Your task to perform on an android device: add a contact in the contacts app Image 0: 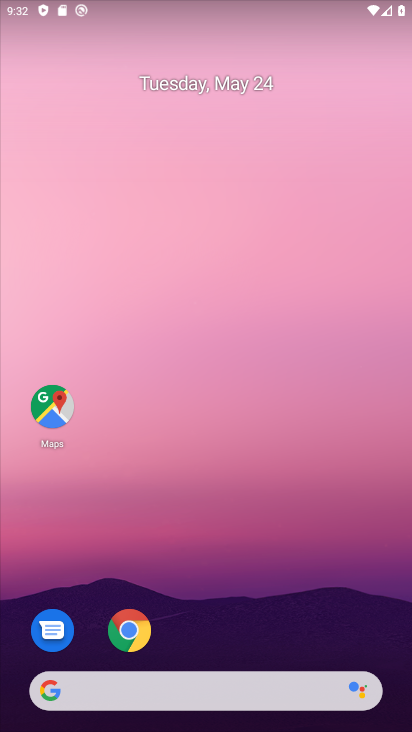
Step 0: press home button
Your task to perform on an android device: add a contact in the contacts app Image 1: 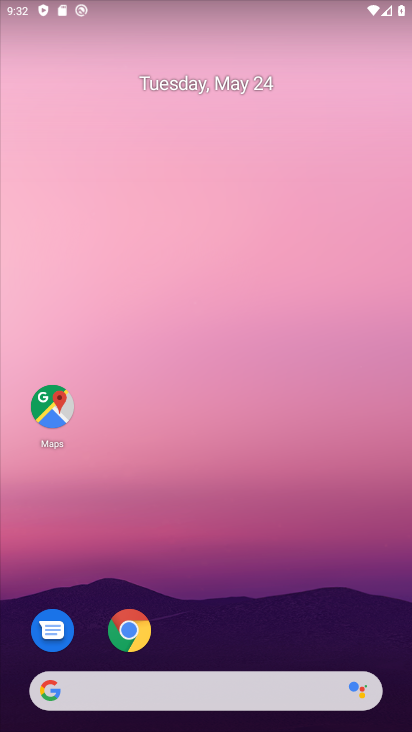
Step 1: drag from (210, 632) to (232, 120)
Your task to perform on an android device: add a contact in the contacts app Image 2: 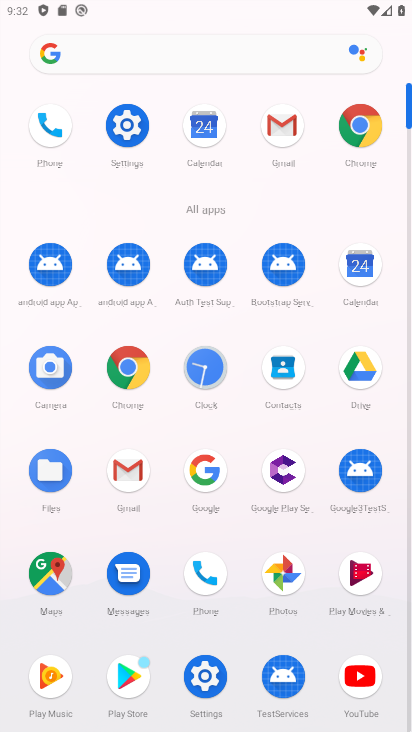
Step 2: click (282, 363)
Your task to perform on an android device: add a contact in the contacts app Image 3: 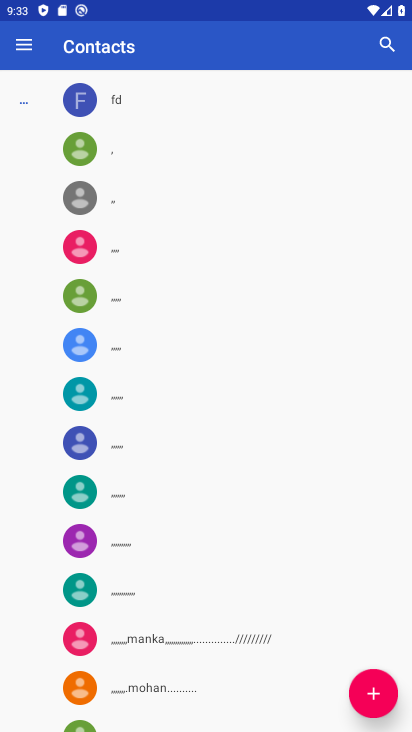
Step 3: click (375, 691)
Your task to perform on an android device: add a contact in the contacts app Image 4: 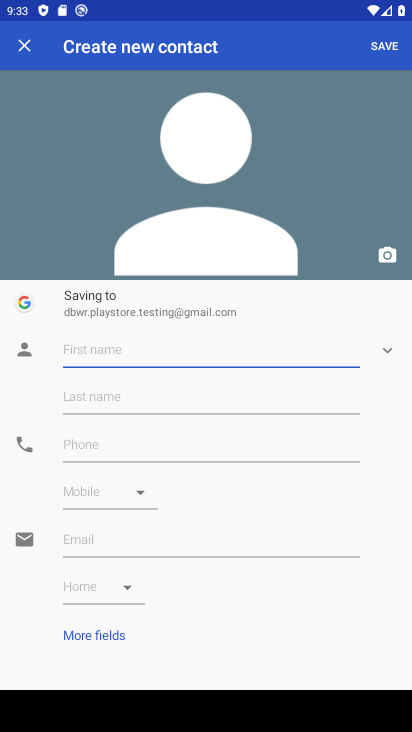
Step 4: type "mnvbgf"
Your task to perform on an android device: add a contact in the contacts app Image 5: 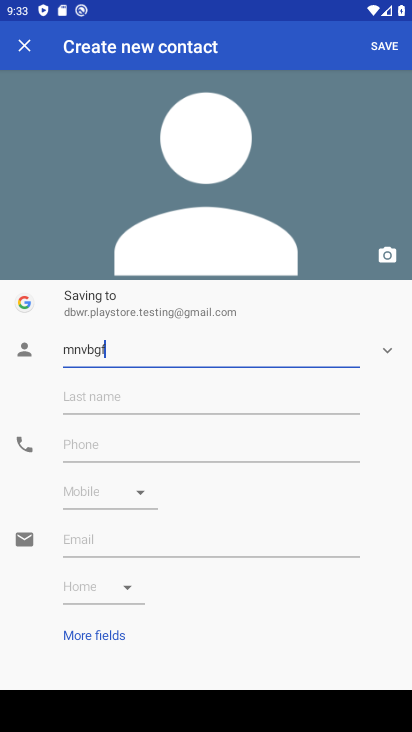
Step 5: click (380, 41)
Your task to perform on an android device: add a contact in the contacts app Image 6: 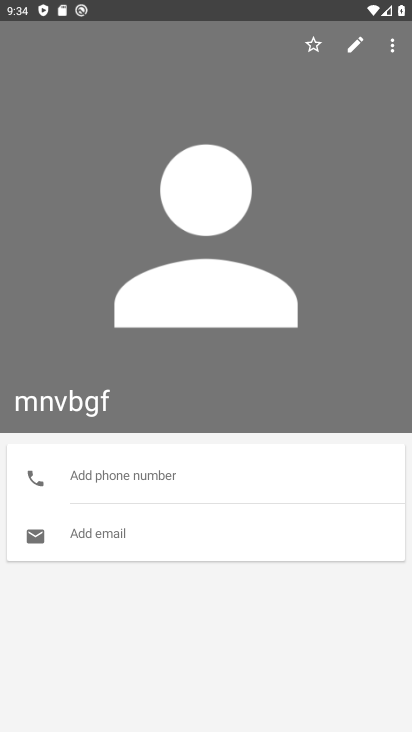
Step 6: task complete